Your task to perform on an android device: visit the assistant section in the google photos Image 0: 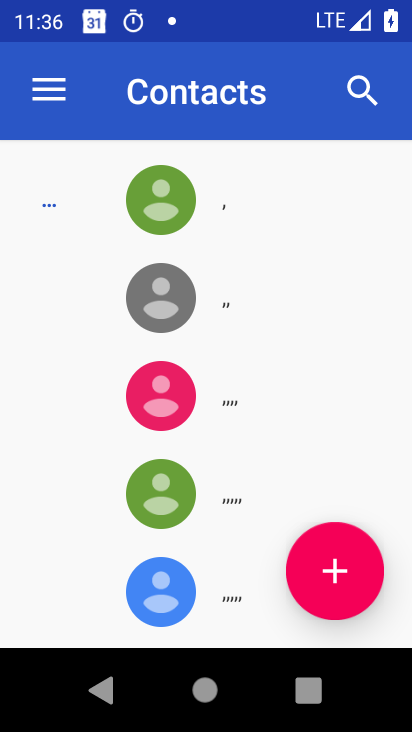
Step 0: press home button
Your task to perform on an android device: visit the assistant section in the google photos Image 1: 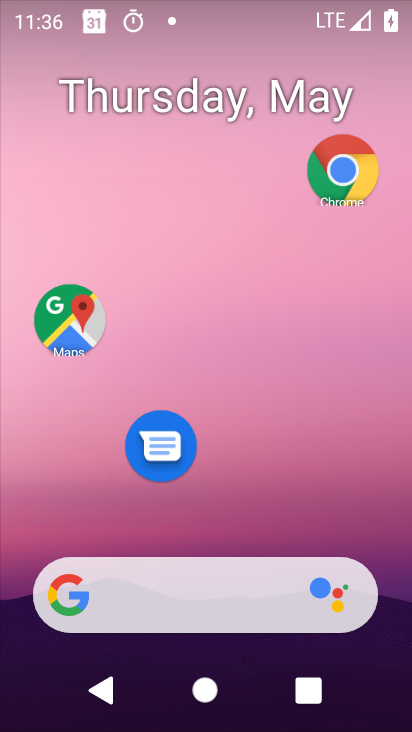
Step 1: drag from (310, 576) to (367, 5)
Your task to perform on an android device: visit the assistant section in the google photos Image 2: 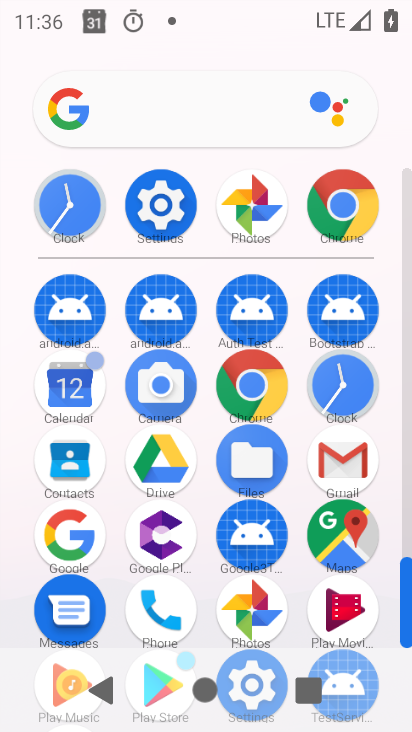
Step 2: click (261, 607)
Your task to perform on an android device: visit the assistant section in the google photos Image 3: 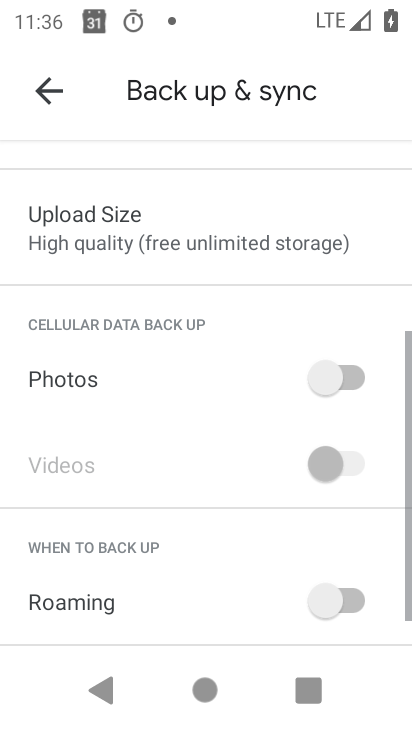
Step 3: press back button
Your task to perform on an android device: visit the assistant section in the google photos Image 4: 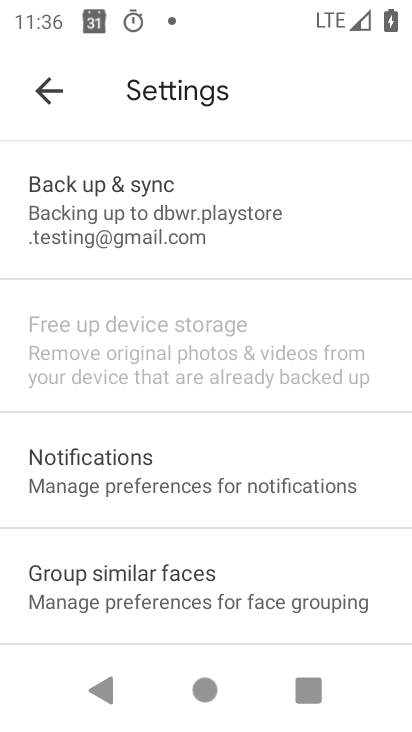
Step 4: press back button
Your task to perform on an android device: visit the assistant section in the google photos Image 5: 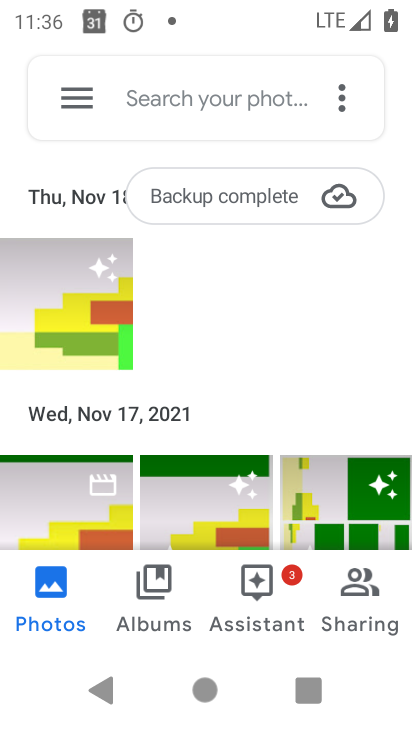
Step 5: click (274, 582)
Your task to perform on an android device: visit the assistant section in the google photos Image 6: 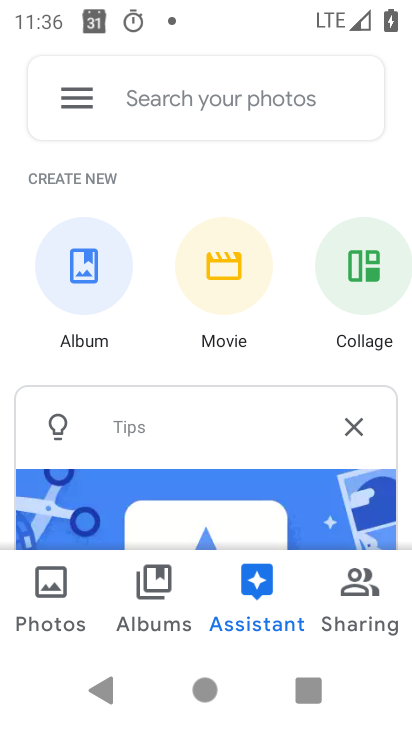
Step 6: task complete